Your task to perform on an android device: open app "PUBG MOBILE" Image 0: 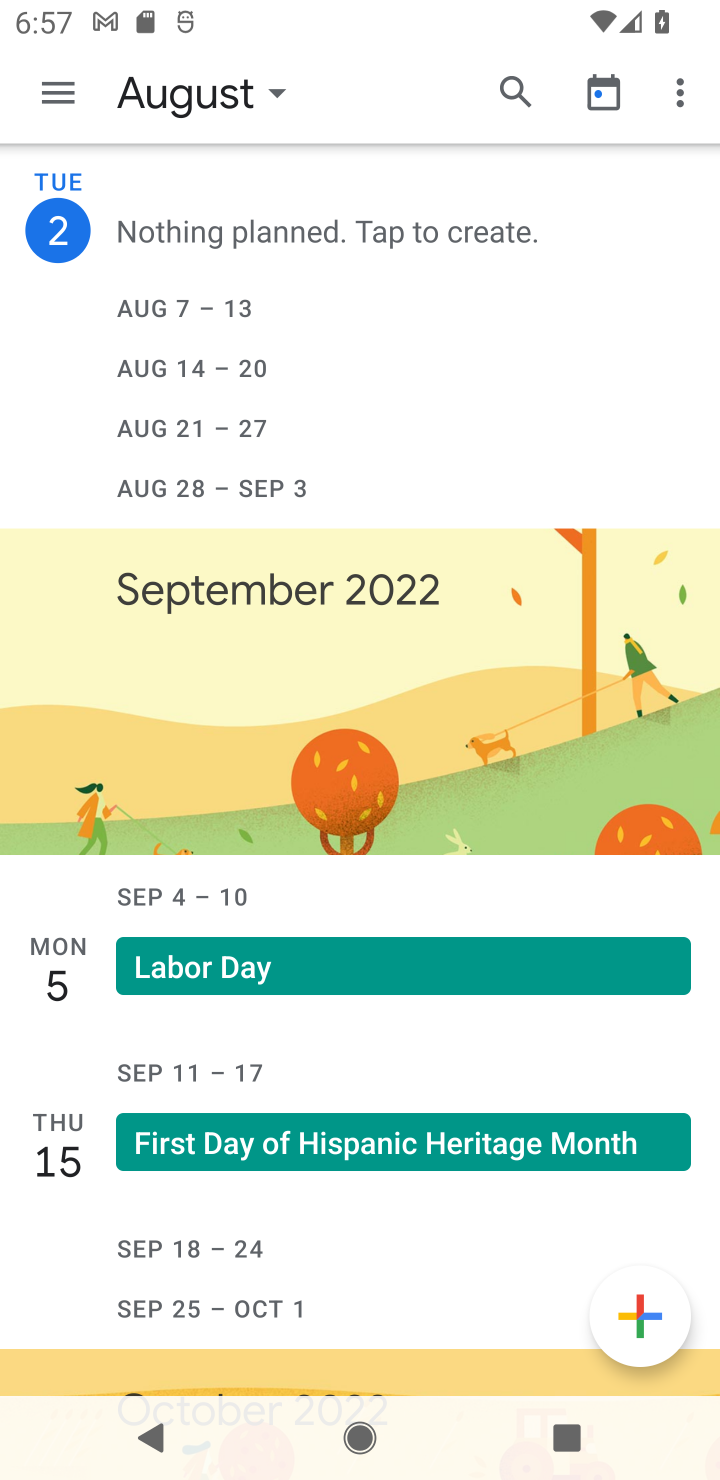
Step 0: press home button
Your task to perform on an android device: open app "PUBG MOBILE" Image 1: 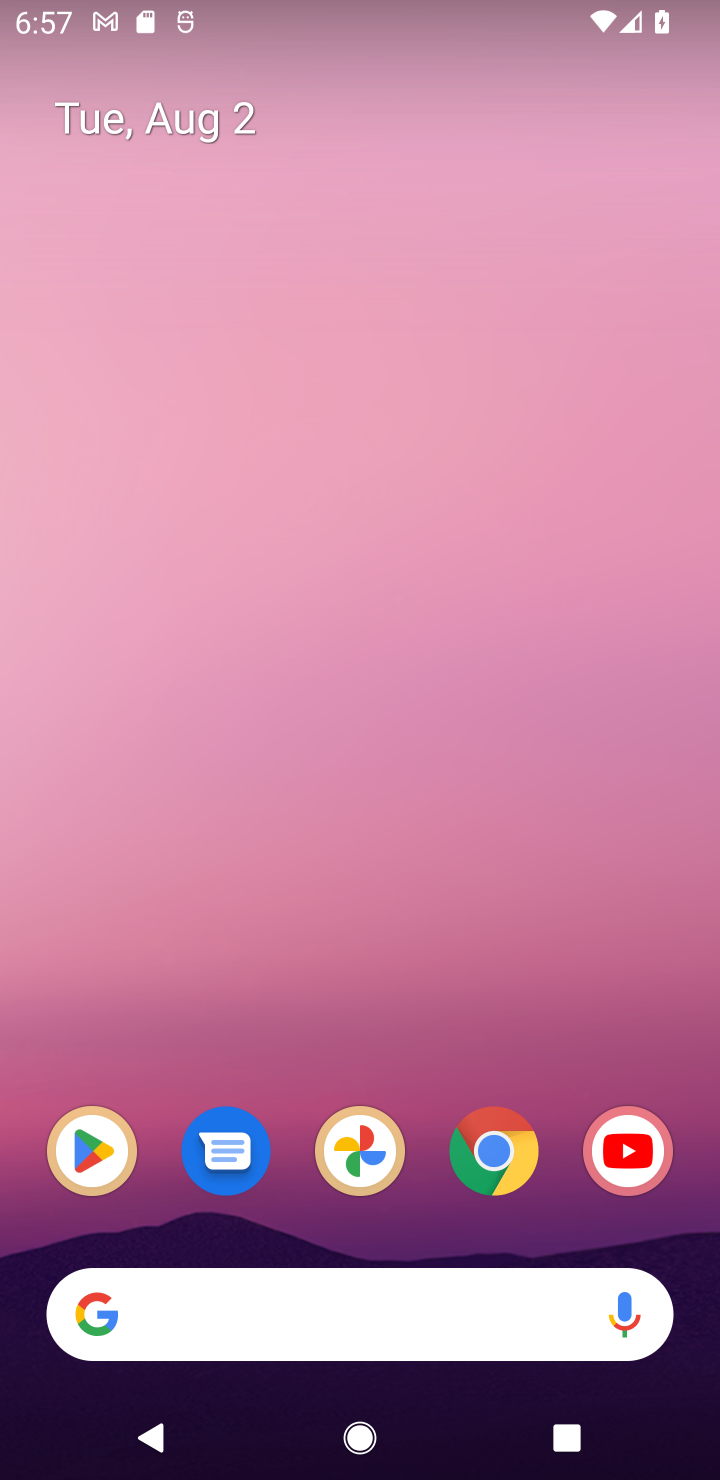
Step 1: click (89, 1171)
Your task to perform on an android device: open app "PUBG MOBILE" Image 2: 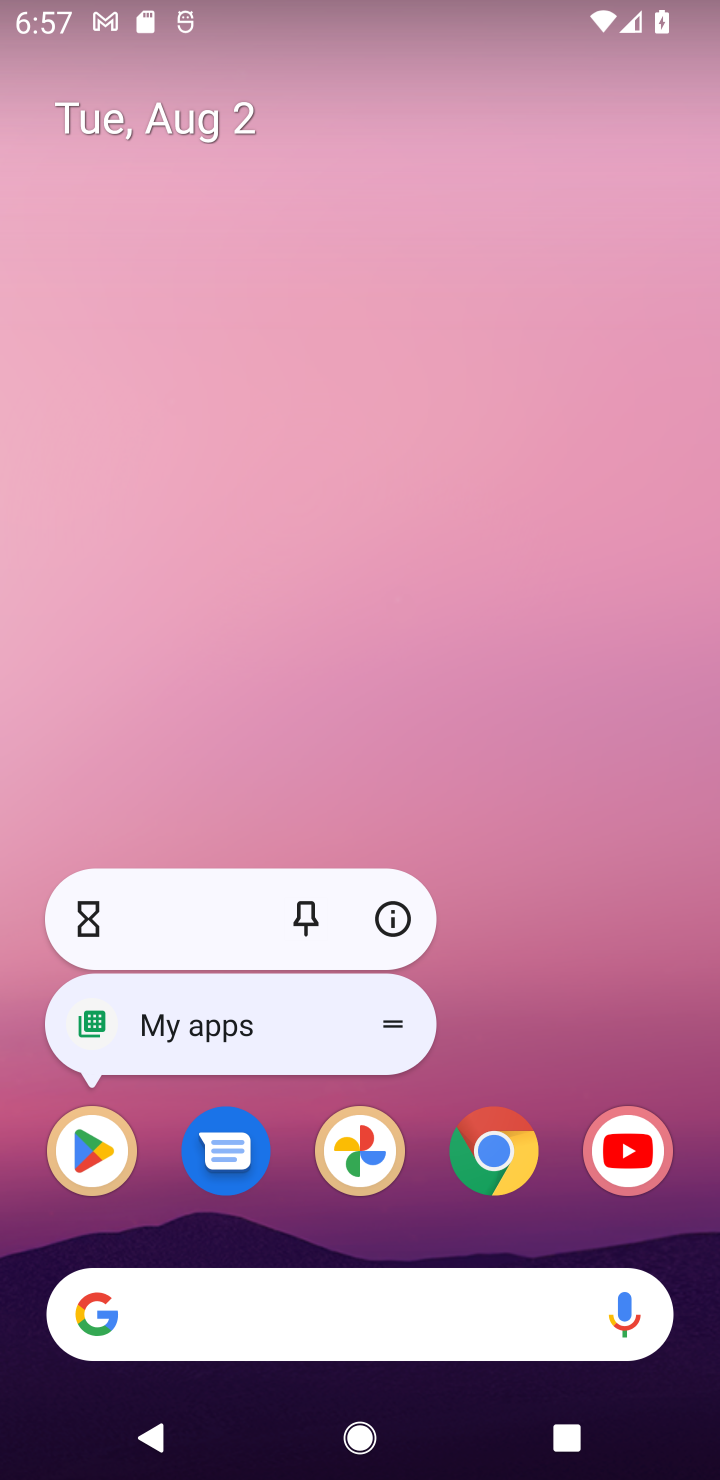
Step 2: click (93, 1189)
Your task to perform on an android device: open app "PUBG MOBILE" Image 3: 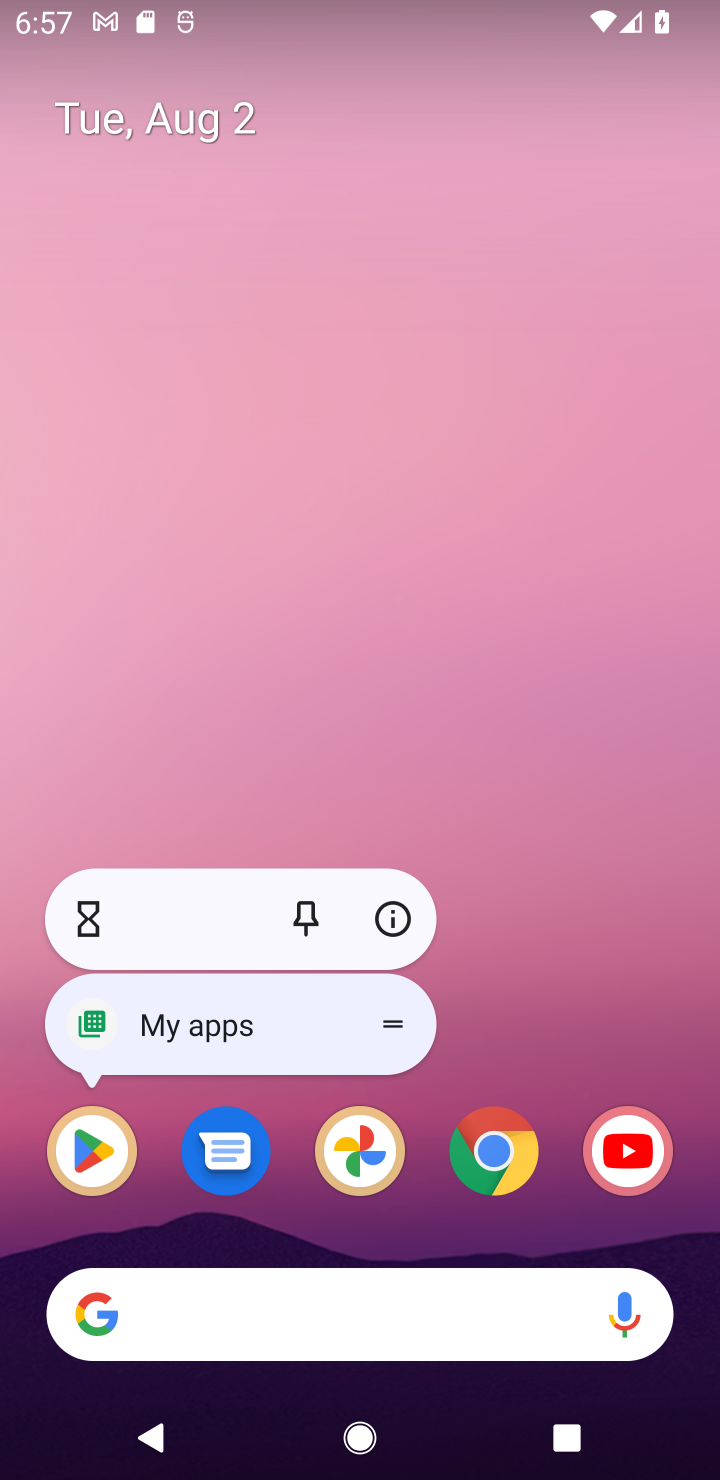
Step 3: click (98, 1152)
Your task to perform on an android device: open app "PUBG MOBILE" Image 4: 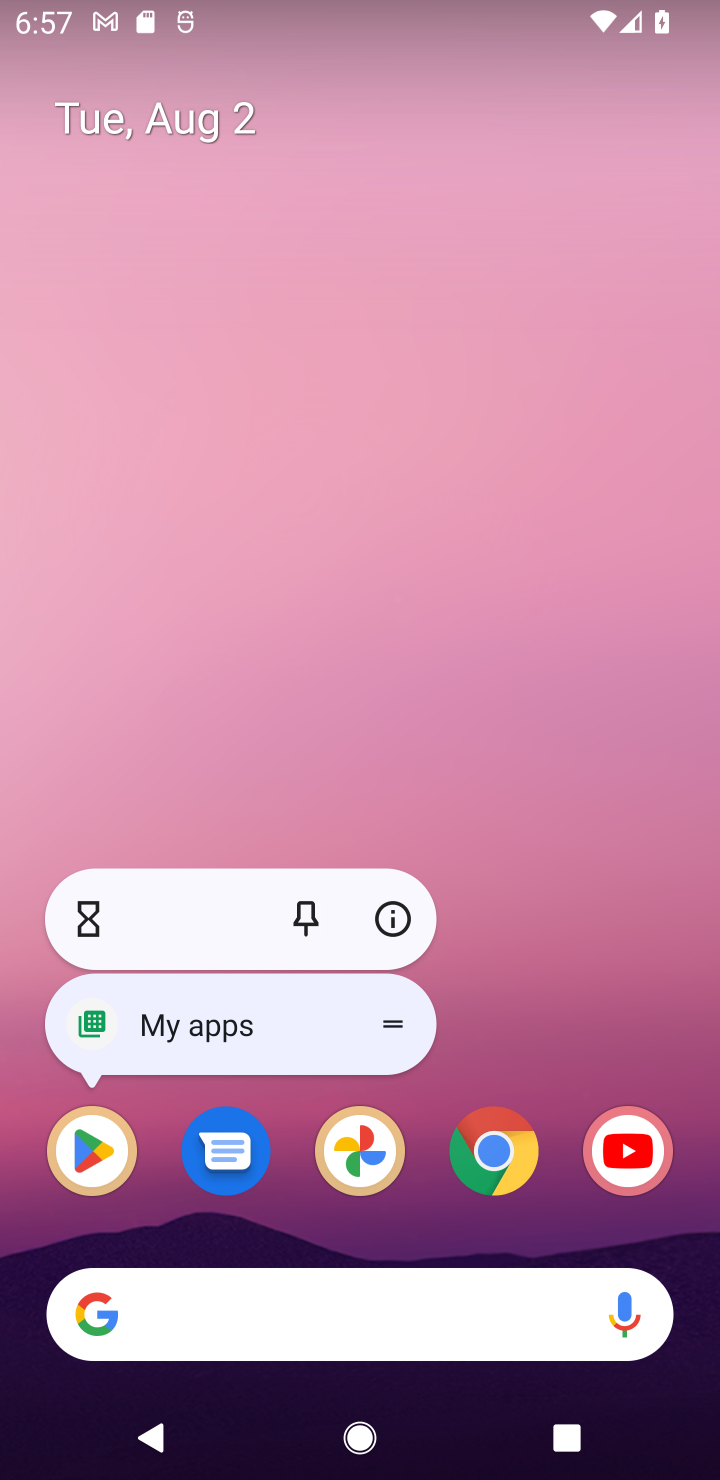
Step 4: click (98, 1152)
Your task to perform on an android device: open app "PUBG MOBILE" Image 5: 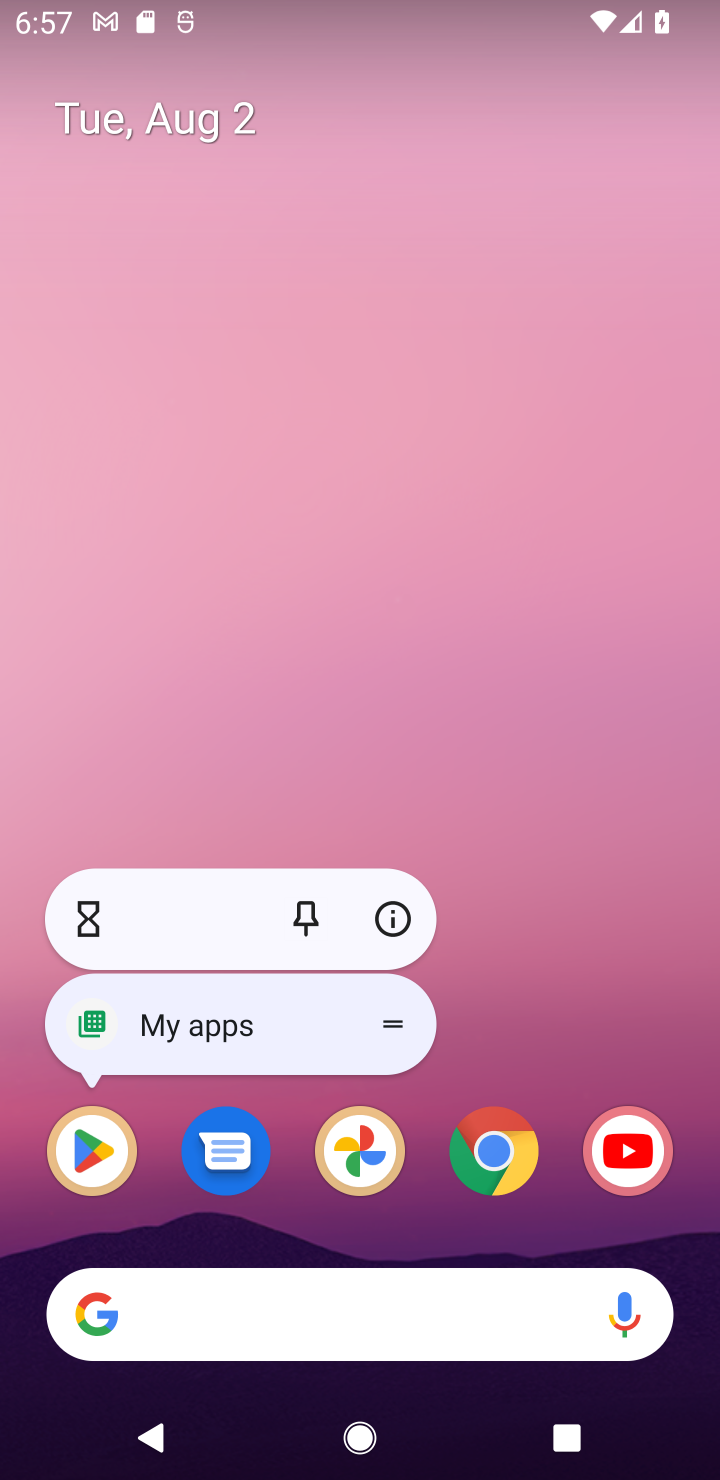
Step 5: click (98, 1152)
Your task to perform on an android device: open app "PUBG MOBILE" Image 6: 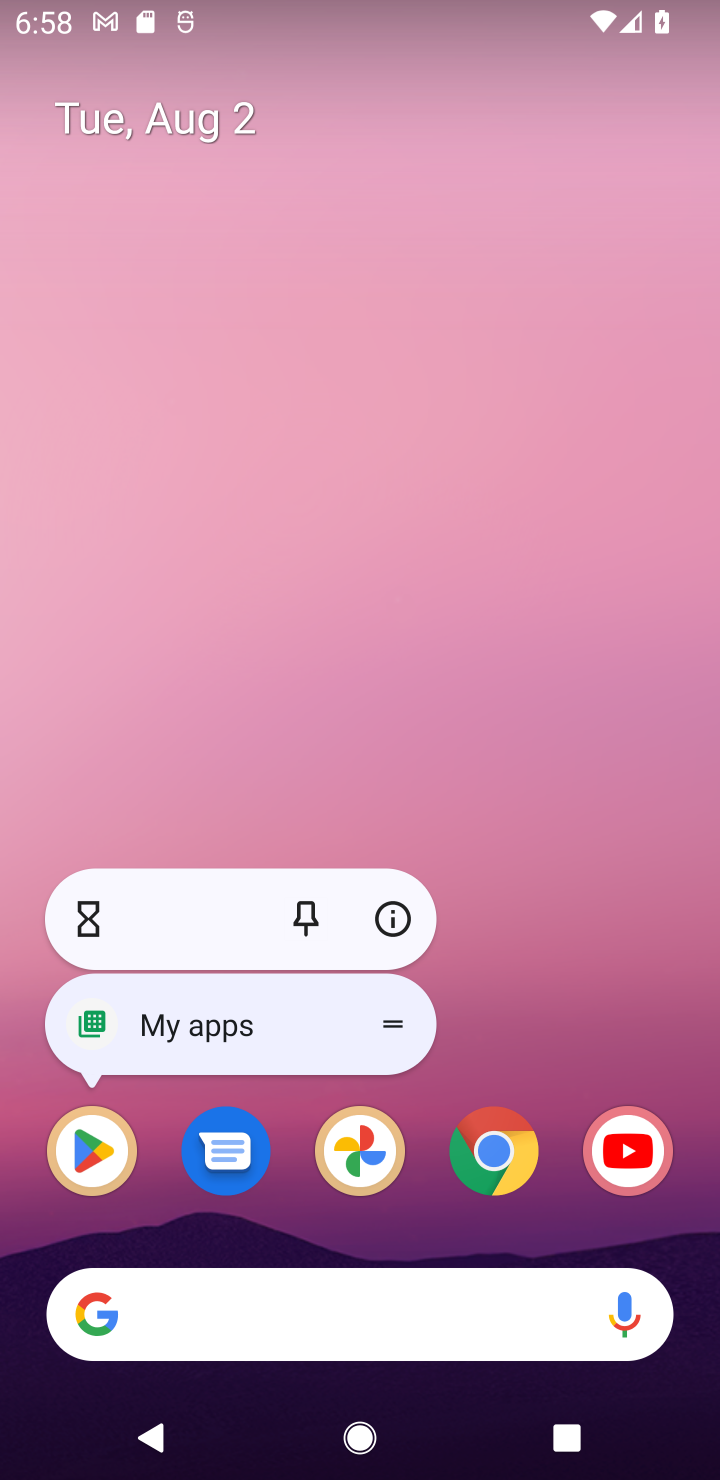
Step 6: click (98, 1152)
Your task to perform on an android device: open app "PUBG MOBILE" Image 7: 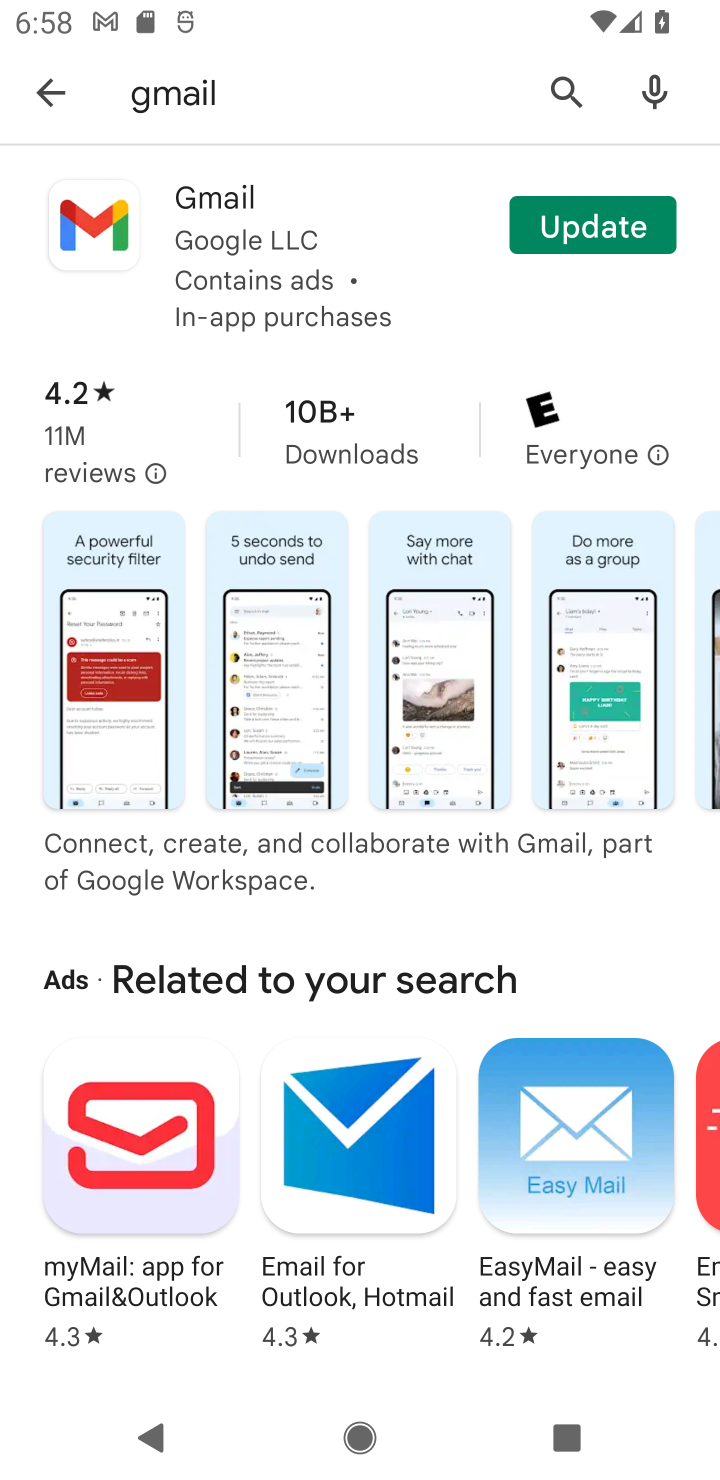
Step 7: click (580, 78)
Your task to perform on an android device: open app "PUBG MOBILE" Image 8: 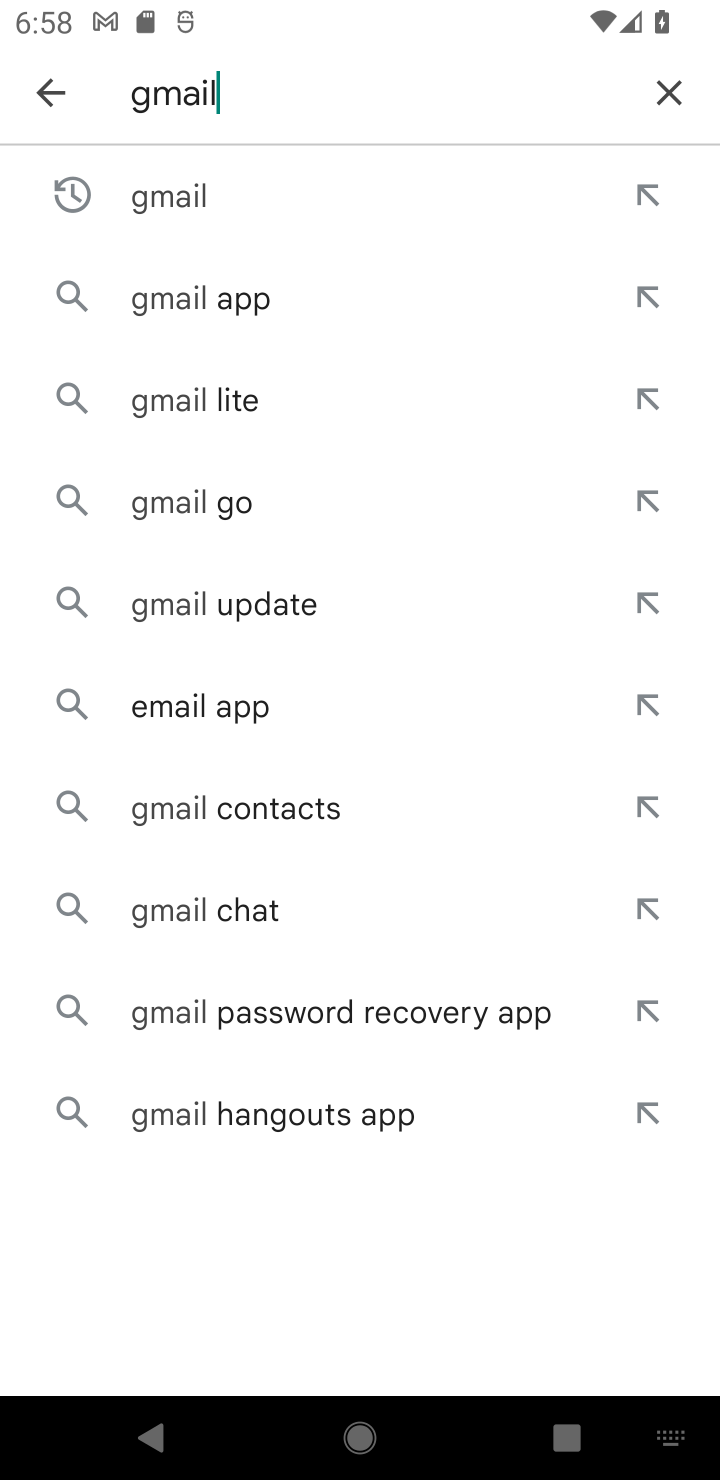
Step 8: click (668, 111)
Your task to perform on an android device: open app "PUBG MOBILE" Image 9: 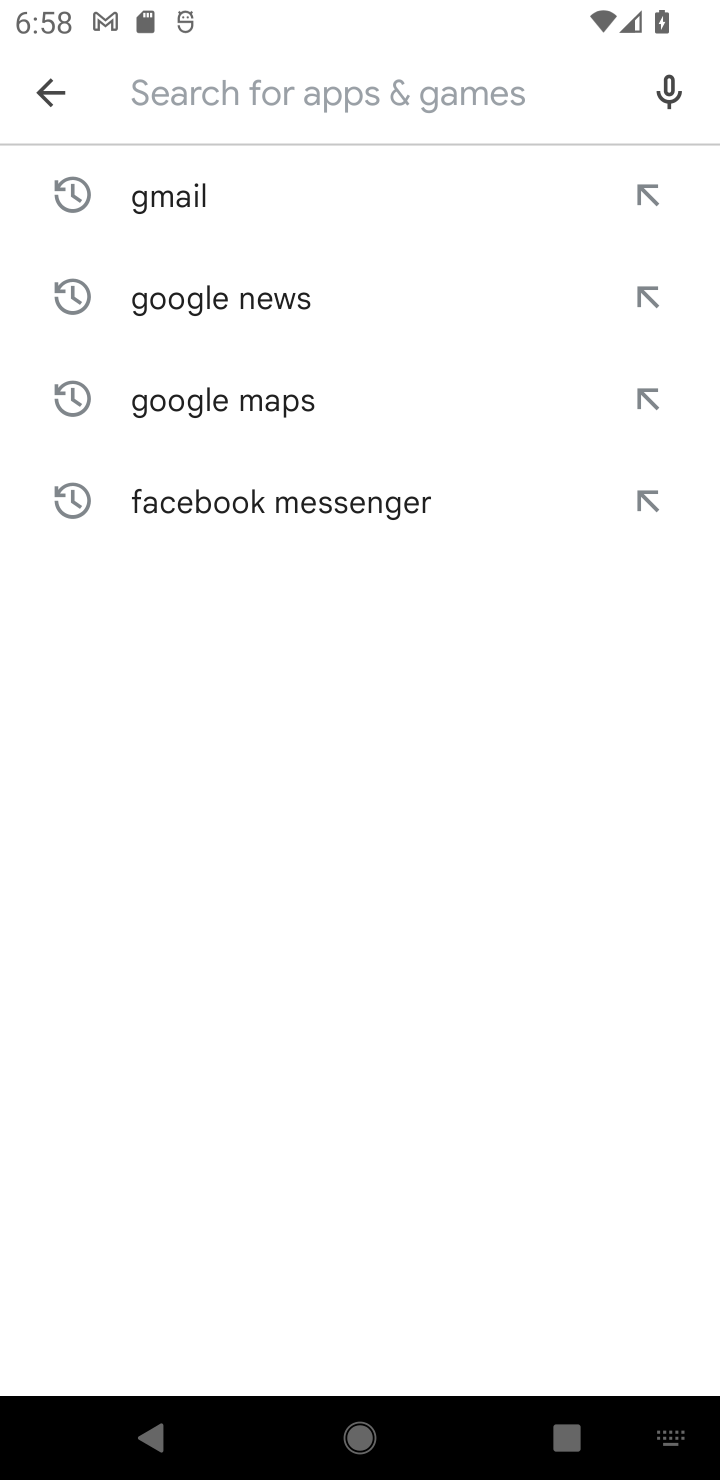
Step 9: type "PUBG MOBILE"
Your task to perform on an android device: open app "PUBG MOBILE" Image 10: 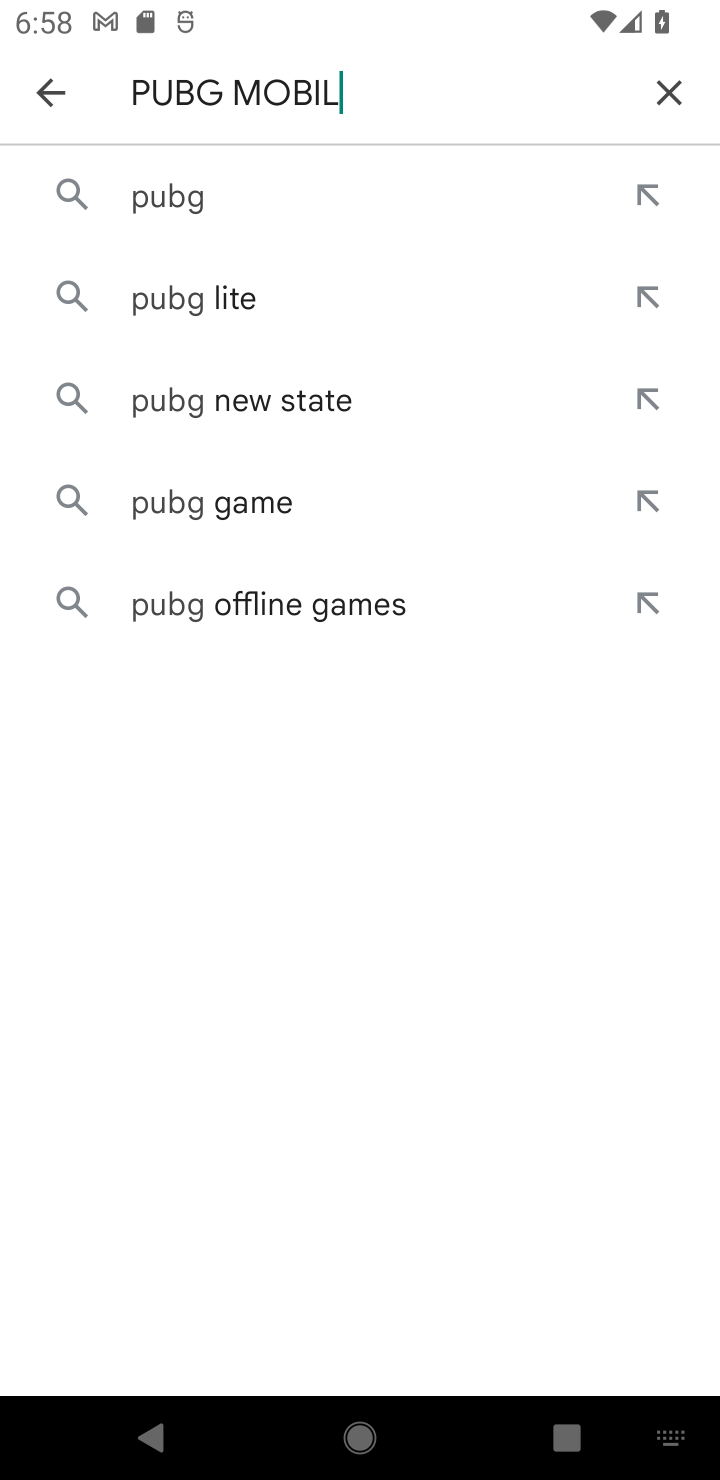
Step 10: type ""
Your task to perform on an android device: open app "PUBG MOBILE" Image 11: 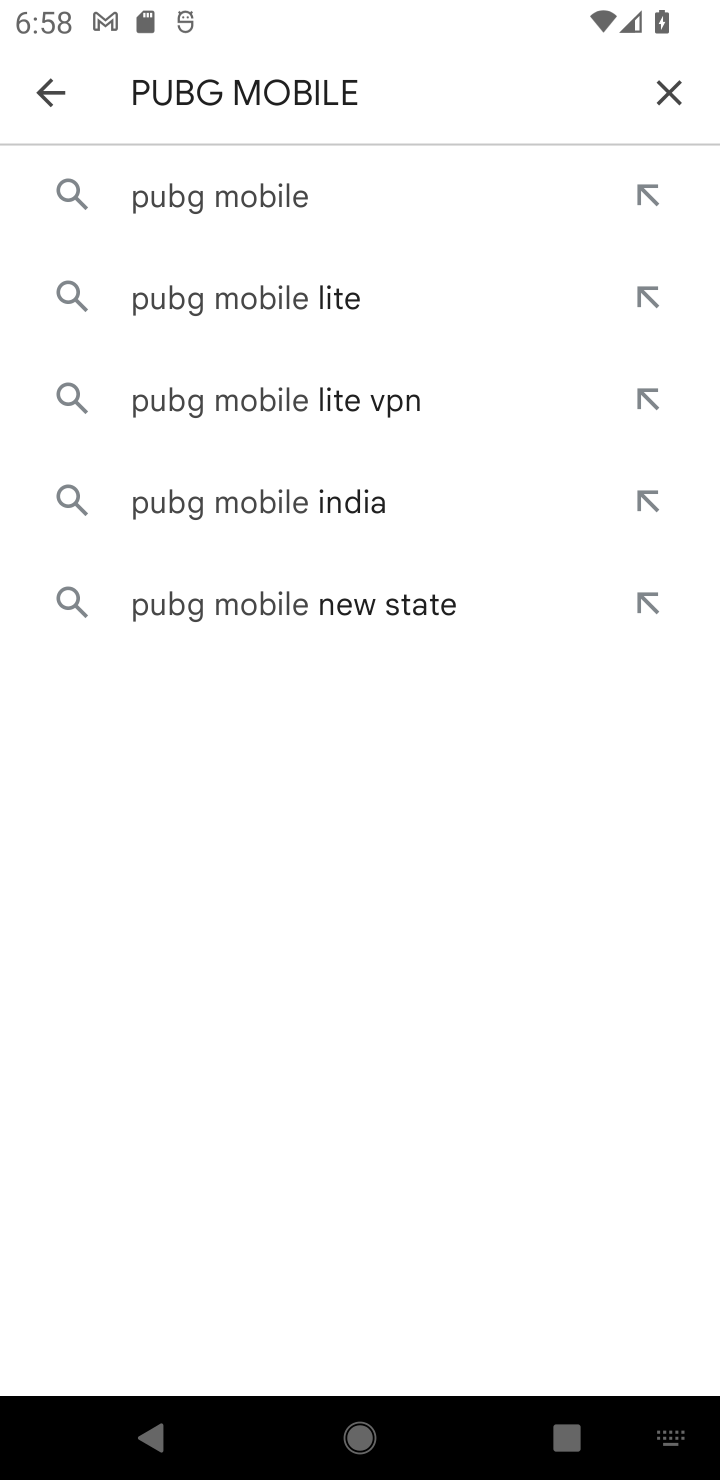
Step 11: click (165, 217)
Your task to perform on an android device: open app "PUBG MOBILE" Image 12: 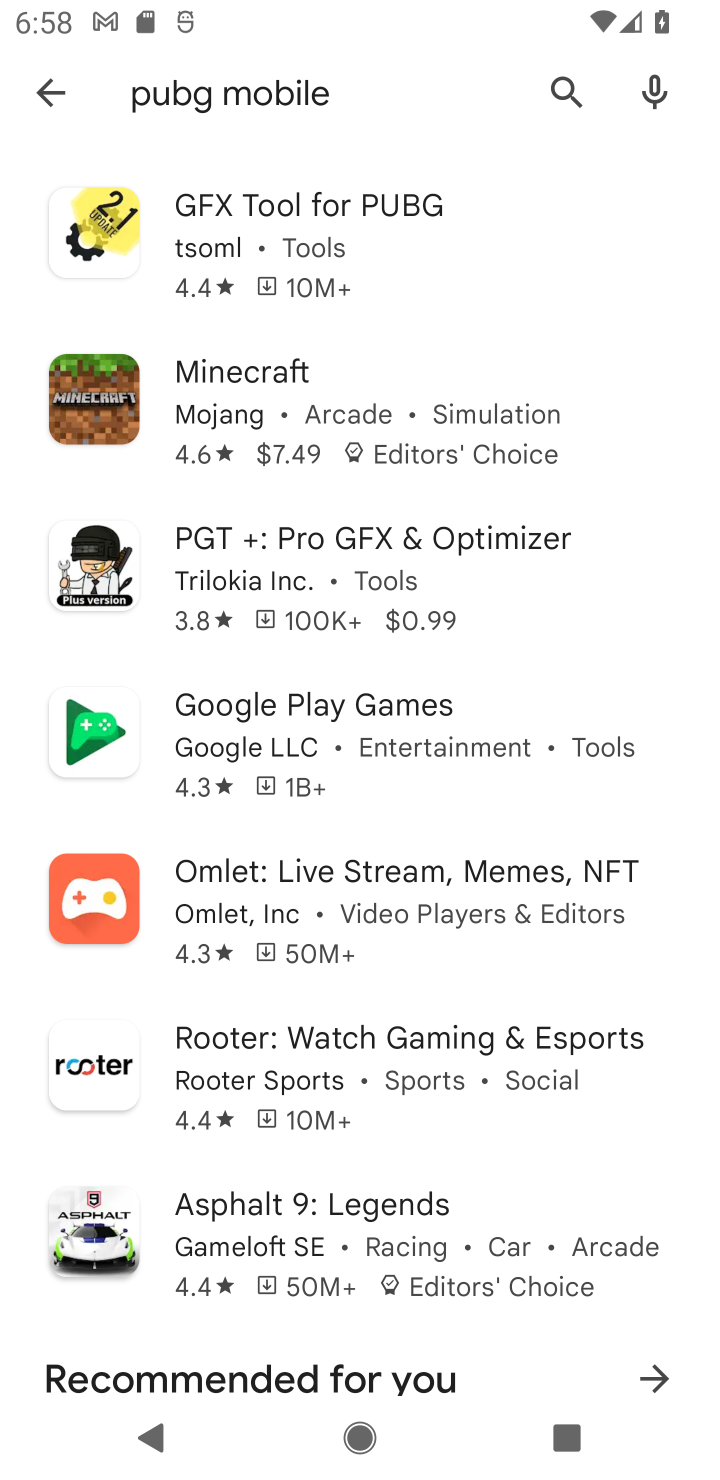
Step 12: task complete